Your task to perform on an android device: toggle wifi Image 0: 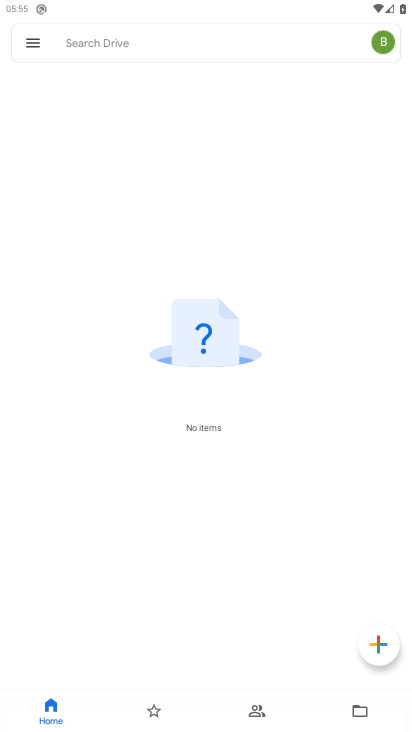
Step 0: press home button
Your task to perform on an android device: toggle wifi Image 1: 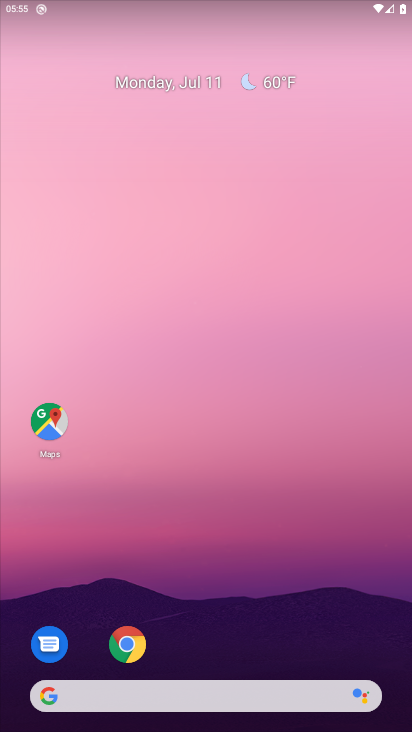
Step 1: drag from (290, 671) to (239, 329)
Your task to perform on an android device: toggle wifi Image 2: 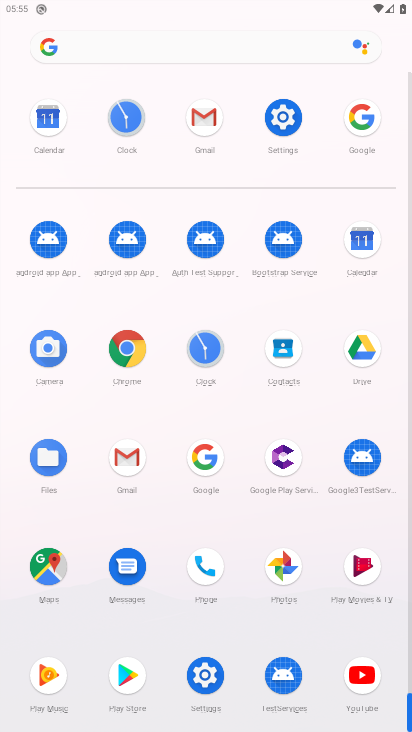
Step 2: click (271, 118)
Your task to perform on an android device: toggle wifi Image 3: 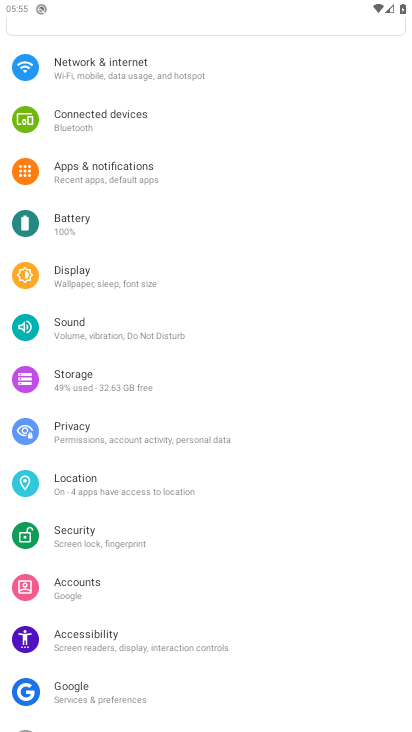
Step 3: click (113, 71)
Your task to perform on an android device: toggle wifi Image 4: 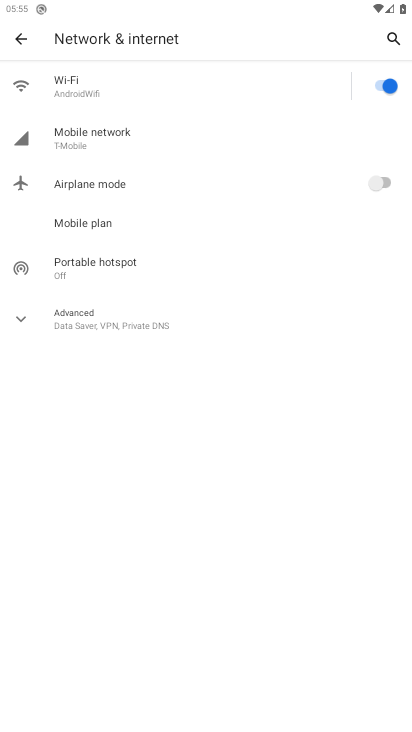
Step 4: click (98, 87)
Your task to perform on an android device: toggle wifi Image 5: 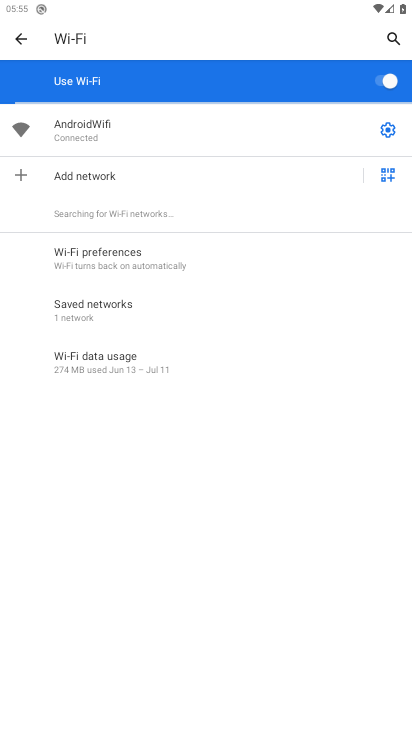
Step 5: click (379, 84)
Your task to perform on an android device: toggle wifi Image 6: 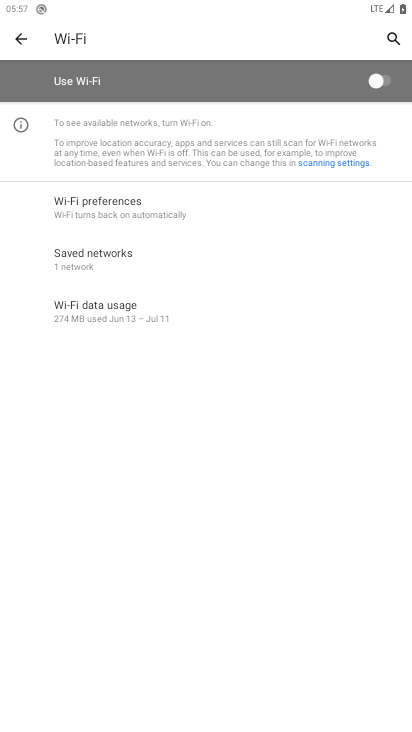
Step 6: task complete